Your task to perform on an android device: change keyboard looks Image 0: 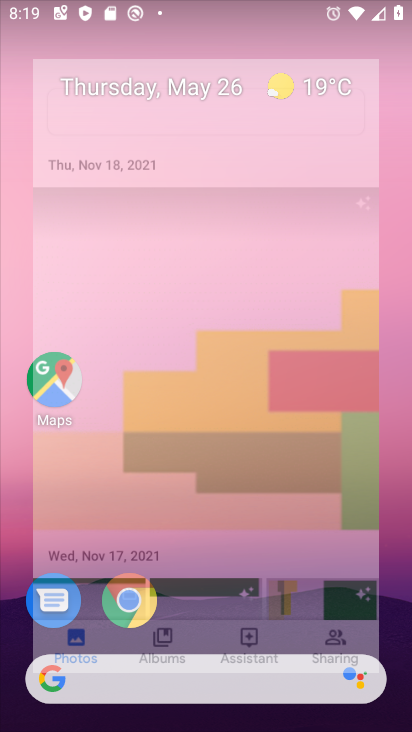
Step 0: press home button
Your task to perform on an android device: change keyboard looks Image 1: 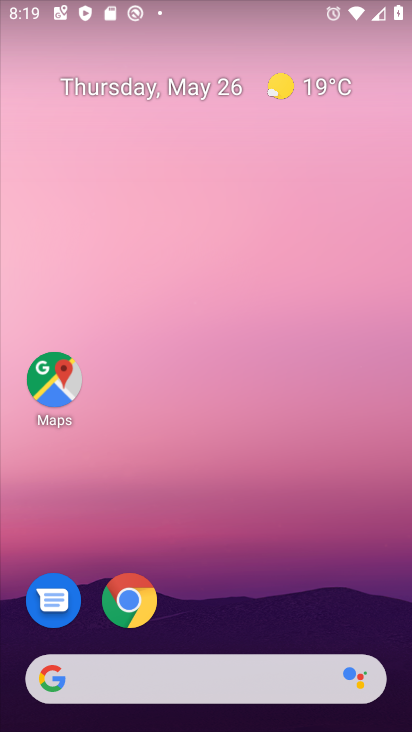
Step 1: drag from (252, 621) to (263, 73)
Your task to perform on an android device: change keyboard looks Image 2: 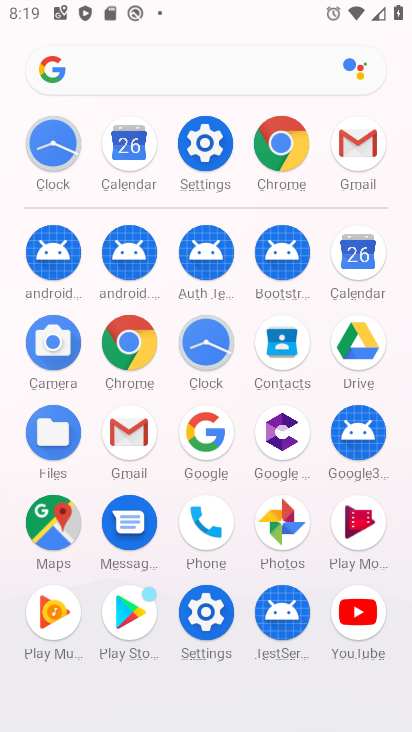
Step 2: click (207, 152)
Your task to perform on an android device: change keyboard looks Image 3: 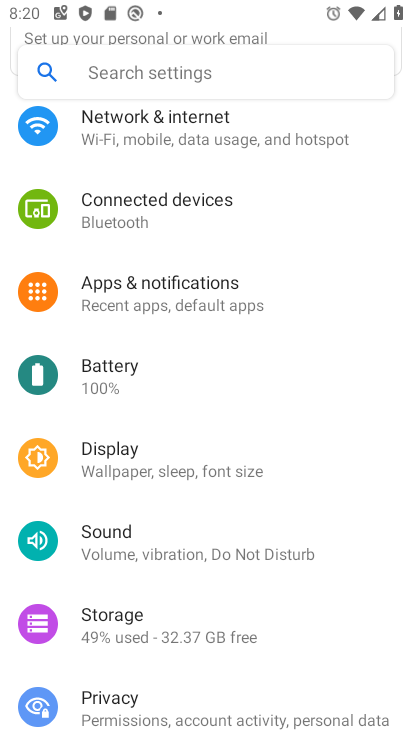
Step 3: drag from (313, 624) to (299, 196)
Your task to perform on an android device: change keyboard looks Image 4: 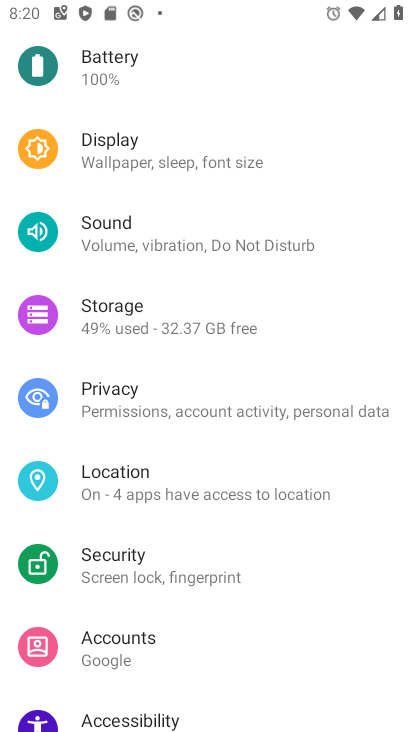
Step 4: drag from (357, 658) to (361, 215)
Your task to perform on an android device: change keyboard looks Image 5: 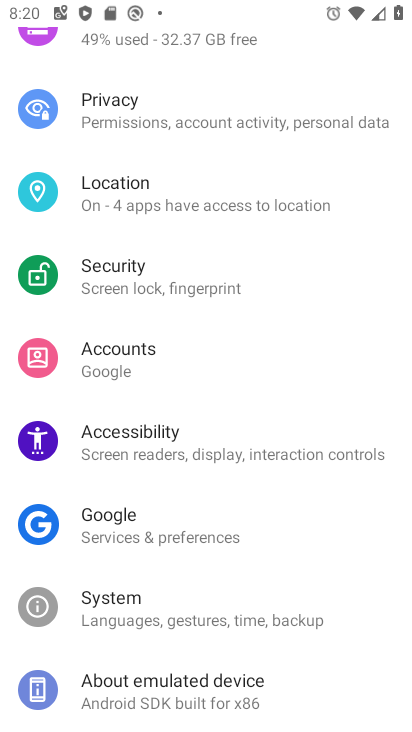
Step 5: click (113, 610)
Your task to perform on an android device: change keyboard looks Image 6: 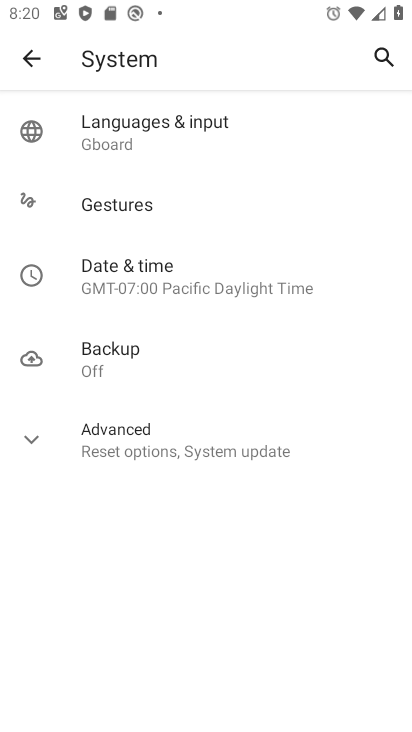
Step 6: click (152, 132)
Your task to perform on an android device: change keyboard looks Image 7: 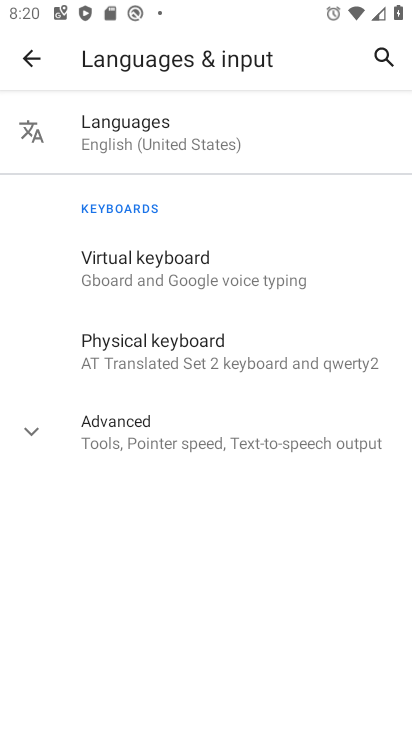
Step 7: click (179, 285)
Your task to perform on an android device: change keyboard looks Image 8: 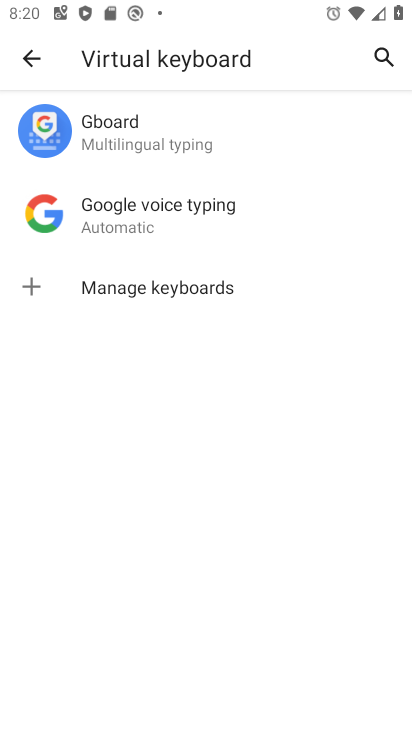
Step 8: click (123, 126)
Your task to perform on an android device: change keyboard looks Image 9: 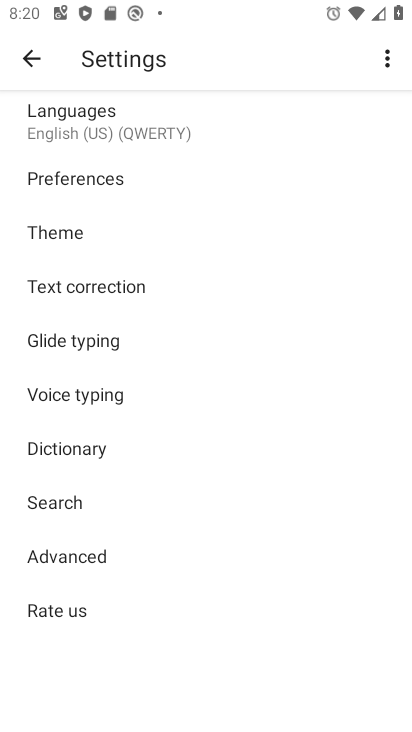
Step 9: click (53, 231)
Your task to perform on an android device: change keyboard looks Image 10: 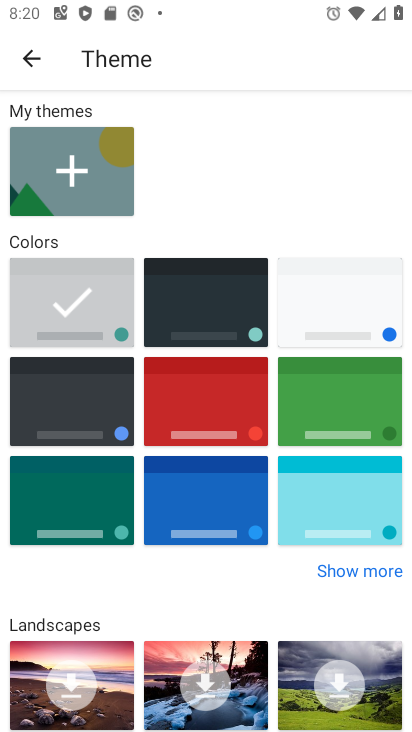
Step 10: click (183, 298)
Your task to perform on an android device: change keyboard looks Image 11: 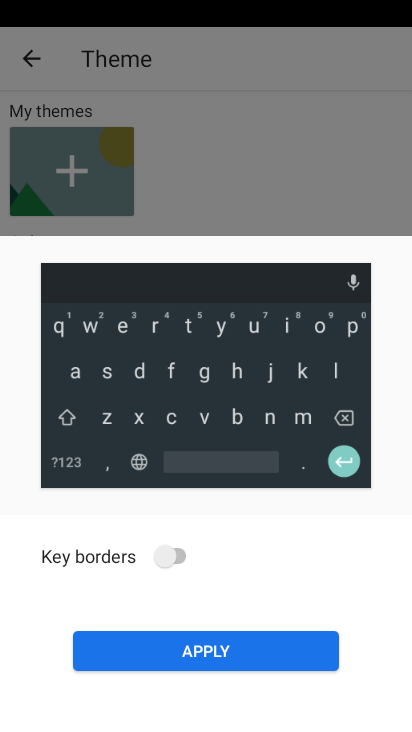
Step 11: click (208, 651)
Your task to perform on an android device: change keyboard looks Image 12: 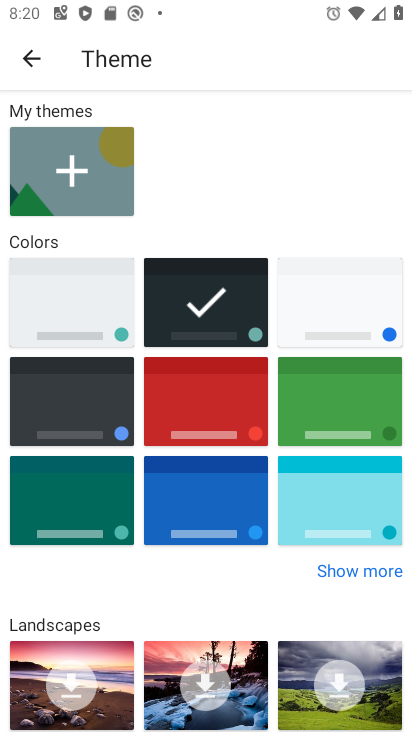
Step 12: task complete